Your task to perform on an android device: Go to eBay Image 0: 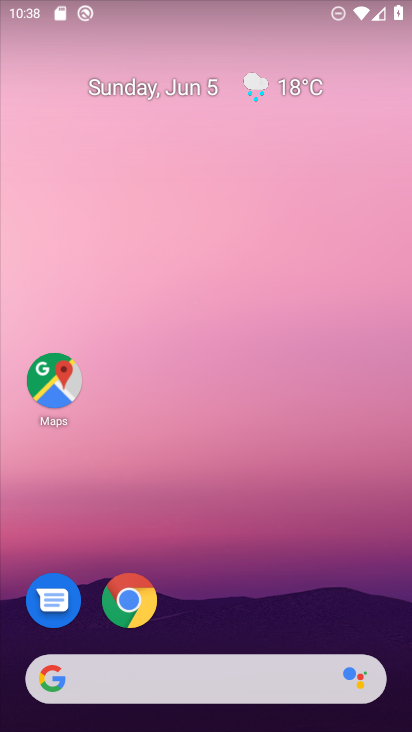
Step 0: click (116, 599)
Your task to perform on an android device: Go to eBay Image 1: 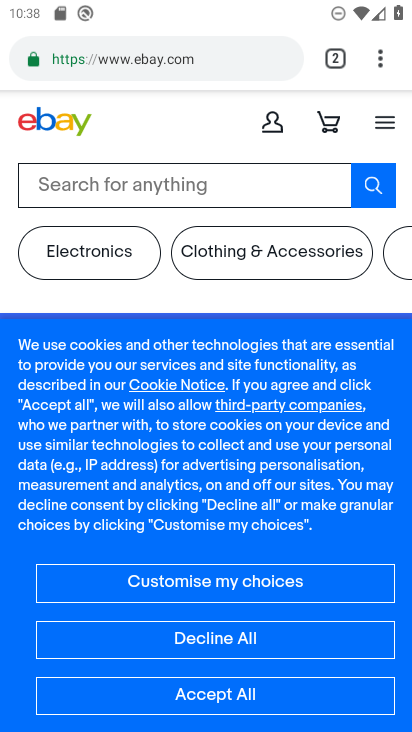
Step 1: task complete